Your task to perform on an android device: Clear the cart on bestbuy.com. Search for "razer blackwidow" on bestbuy.com, select the first entry, and add it to the cart. Image 0: 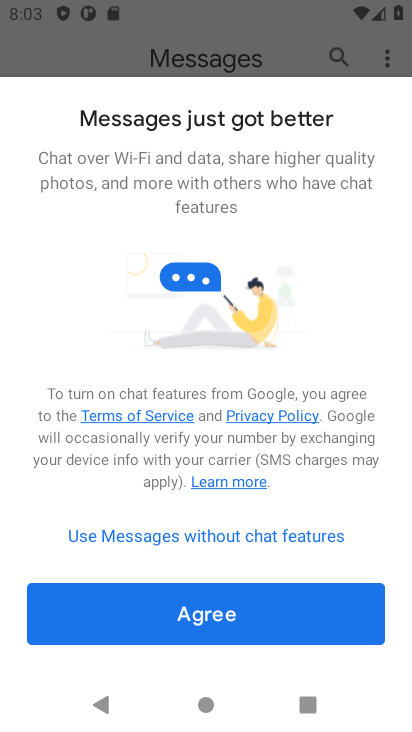
Step 0: press home button
Your task to perform on an android device: Clear the cart on bestbuy.com. Search for "razer blackwidow" on bestbuy.com, select the first entry, and add it to the cart. Image 1: 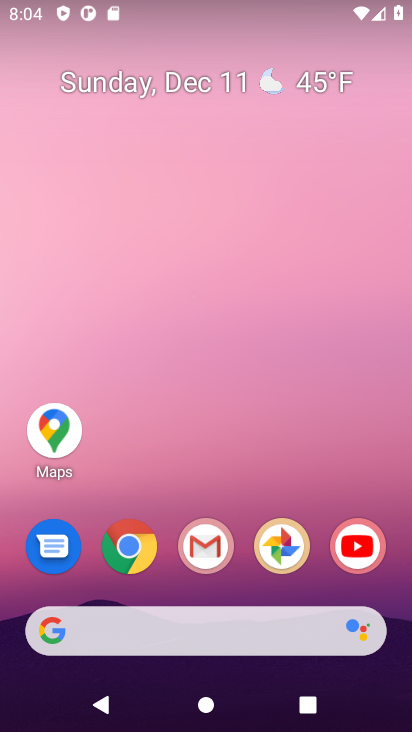
Step 1: click (134, 545)
Your task to perform on an android device: Clear the cart on bestbuy.com. Search for "razer blackwidow" on bestbuy.com, select the first entry, and add it to the cart. Image 2: 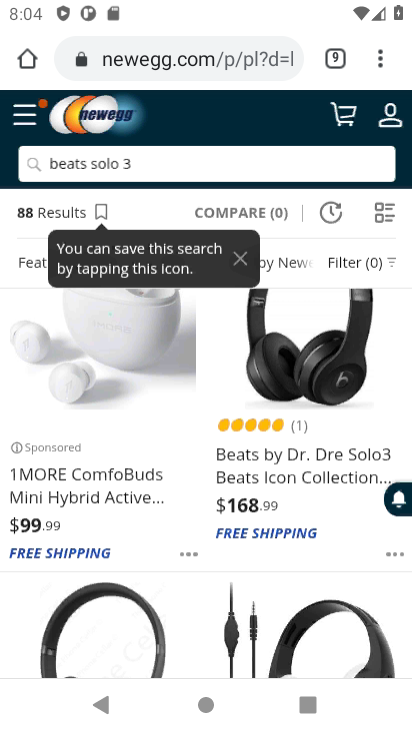
Step 2: click (178, 68)
Your task to perform on an android device: Clear the cart on bestbuy.com. Search for "razer blackwidow" on bestbuy.com, select the first entry, and add it to the cart. Image 3: 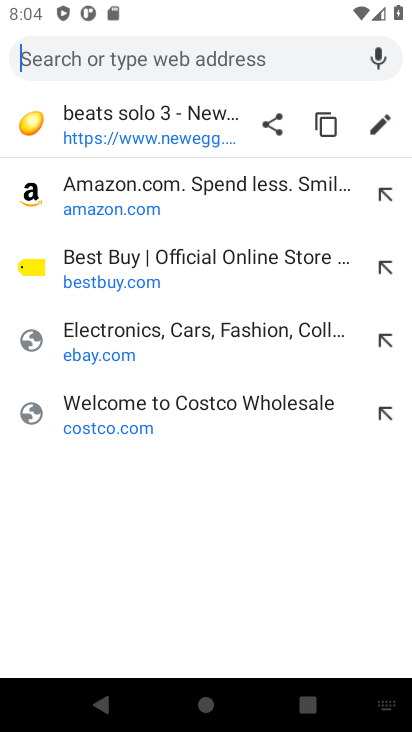
Step 3: click (87, 274)
Your task to perform on an android device: Clear the cart on bestbuy.com. Search for "razer blackwidow" on bestbuy.com, select the first entry, and add it to the cart. Image 4: 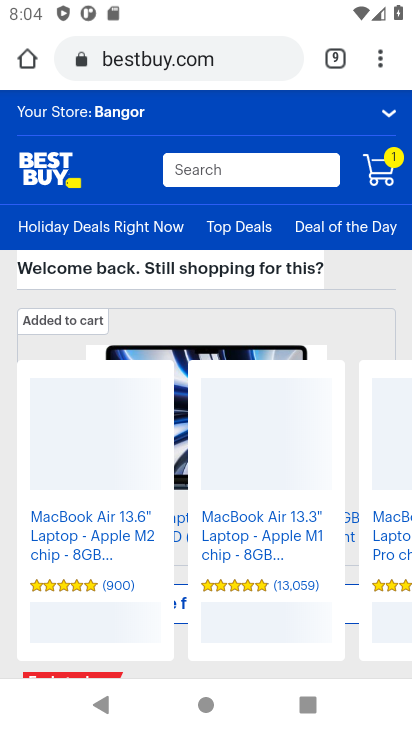
Step 4: click (387, 175)
Your task to perform on an android device: Clear the cart on bestbuy.com. Search for "razer blackwidow" on bestbuy.com, select the first entry, and add it to the cart. Image 5: 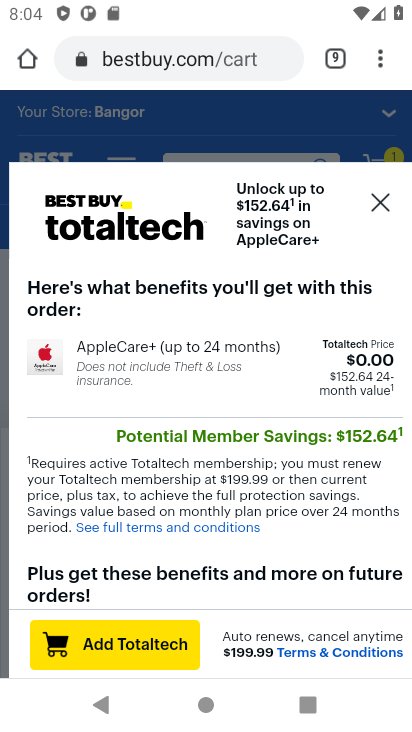
Step 5: click (373, 207)
Your task to perform on an android device: Clear the cart on bestbuy.com. Search for "razer blackwidow" on bestbuy.com, select the first entry, and add it to the cart. Image 6: 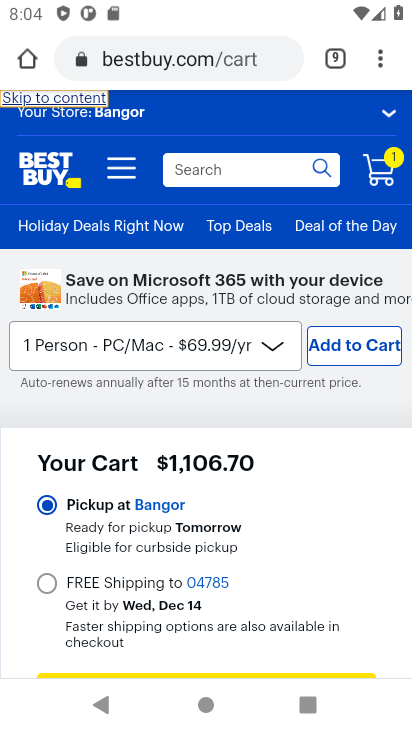
Step 6: drag from (196, 437) to (204, 154)
Your task to perform on an android device: Clear the cart on bestbuy.com. Search for "razer blackwidow" on bestbuy.com, select the first entry, and add it to the cart. Image 7: 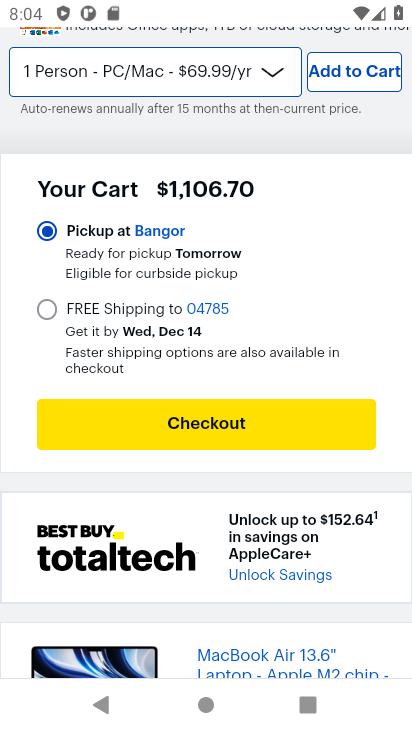
Step 7: drag from (189, 504) to (195, 168)
Your task to perform on an android device: Clear the cart on bestbuy.com. Search for "razer blackwidow" on bestbuy.com, select the first entry, and add it to the cart. Image 8: 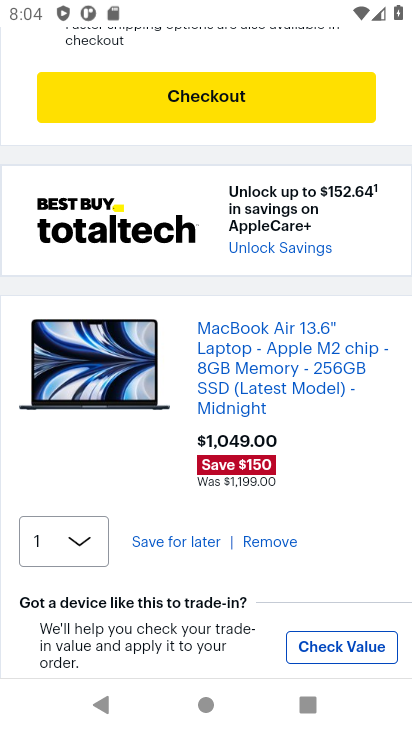
Step 8: click (257, 541)
Your task to perform on an android device: Clear the cart on bestbuy.com. Search for "razer blackwidow" on bestbuy.com, select the first entry, and add it to the cart. Image 9: 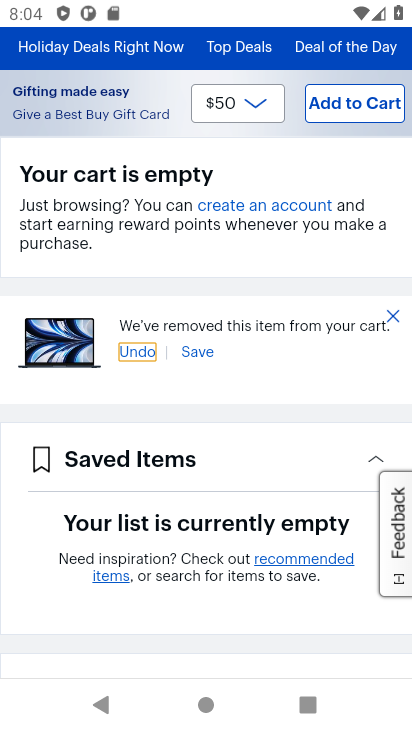
Step 9: drag from (189, 315) to (212, 584)
Your task to perform on an android device: Clear the cart on bestbuy.com. Search for "razer blackwidow" on bestbuy.com, select the first entry, and add it to the cart. Image 10: 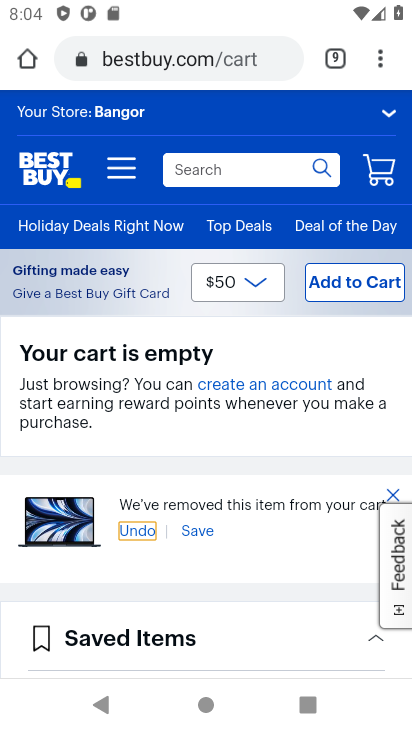
Step 10: click (184, 167)
Your task to perform on an android device: Clear the cart on bestbuy.com. Search for "razer blackwidow" on bestbuy.com, select the first entry, and add it to the cart. Image 11: 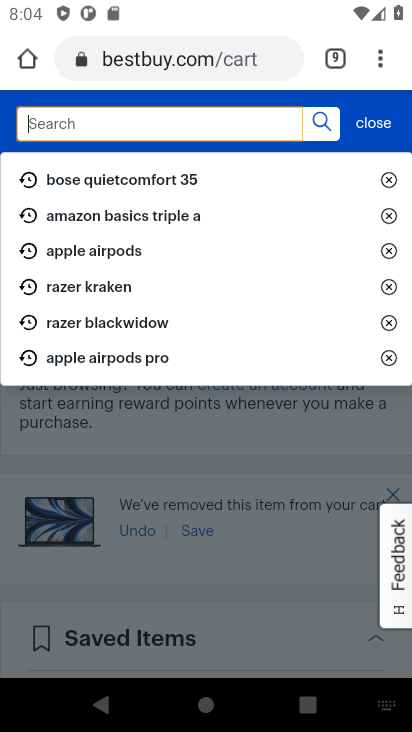
Step 11: type "razer blackwidow"
Your task to perform on an android device: Clear the cart on bestbuy.com. Search for "razer blackwidow" on bestbuy.com, select the first entry, and add it to the cart. Image 12: 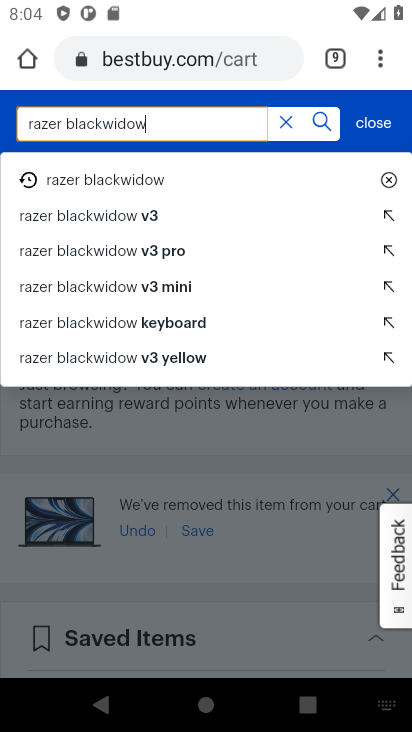
Step 12: click (155, 181)
Your task to perform on an android device: Clear the cart on bestbuy.com. Search for "razer blackwidow" on bestbuy.com, select the first entry, and add it to the cart. Image 13: 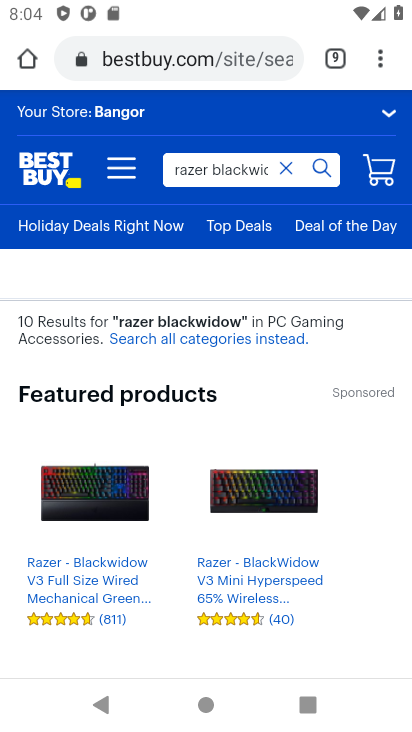
Step 13: drag from (201, 476) to (198, 197)
Your task to perform on an android device: Clear the cart on bestbuy.com. Search for "razer blackwidow" on bestbuy.com, select the first entry, and add it to the cart. Image 14: 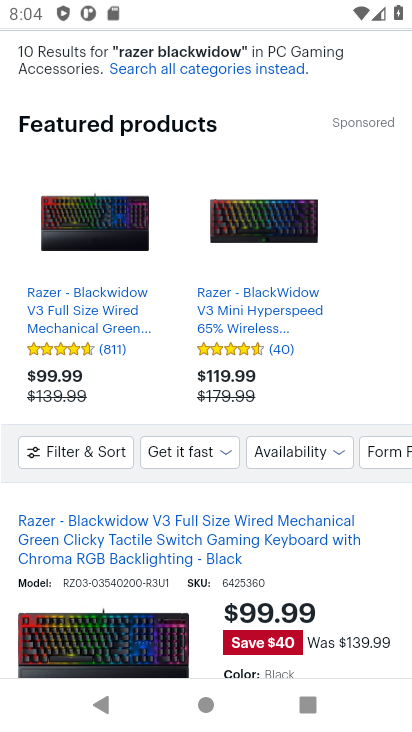
Step 14: drag from (158, 527) to (170, 233)
Your task to perform on an android device: Clear the cart on bestbuy.com. Search for "razer blackwidow" on bestbuy.com, select the first entry, and add it to the cart. Image 15: 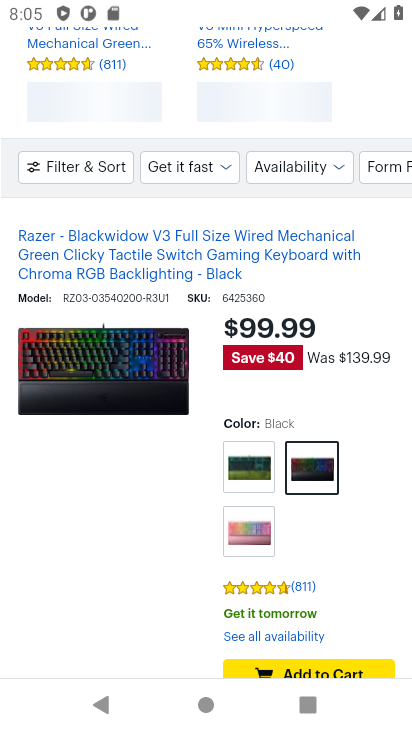
Step 15: click (294, 636)
Your task to perform on an android device: Clear the cart on bestbuy.com. Search for "razer blackwidow" on bestbuy.com, select the first entry, and add it to the cart. Image 16: 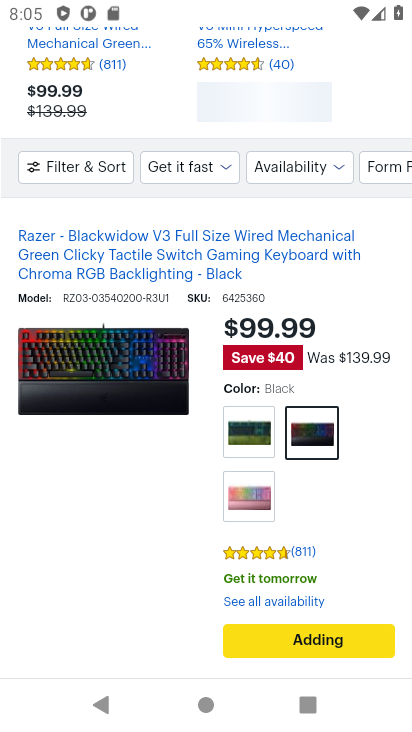
Step 16: click (290, 676)
Your task to perform on an android device: Clear the cart on bestbuy.com. Search for "razer blackwidow" on bestbuy.com, select the first entry, and add it to the cart. Image 17: 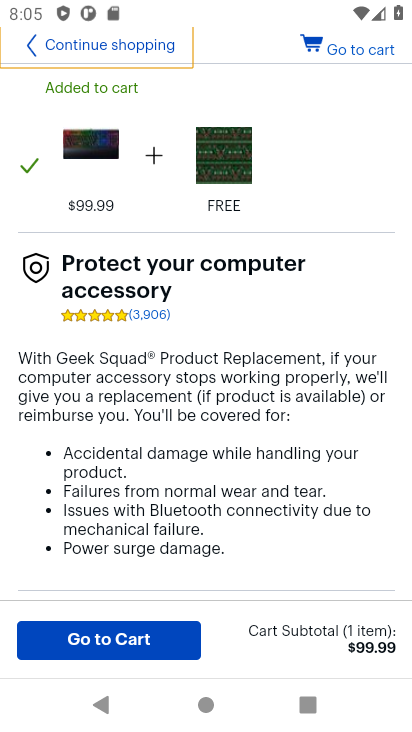
Step 17: task complete